Your task to perform on an android device: Open Chrome and go to settings Image 0: 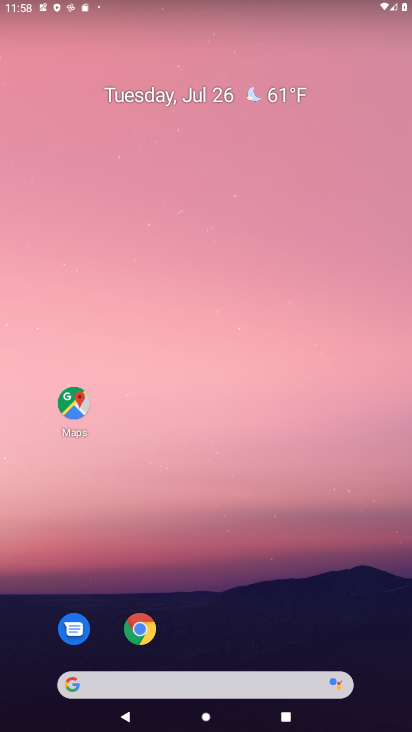
Step 0: click (144, 641)
Your task to perform on an android device: Open Chrome and go to settings Image 1: 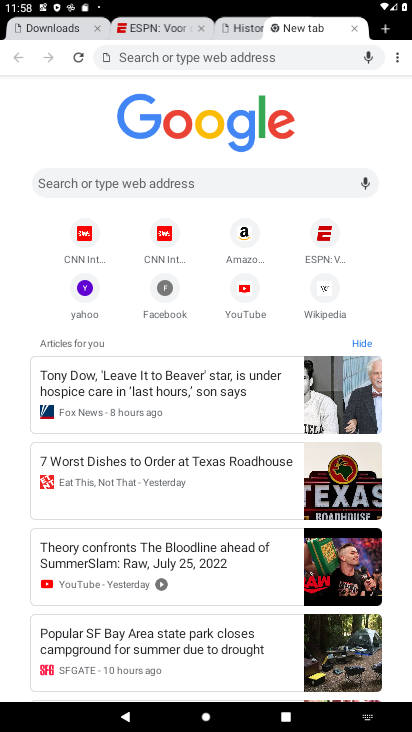
Step 1: click (403, 59)
Your task to perform on an android device: Open Chrome and go to settings Image 2: 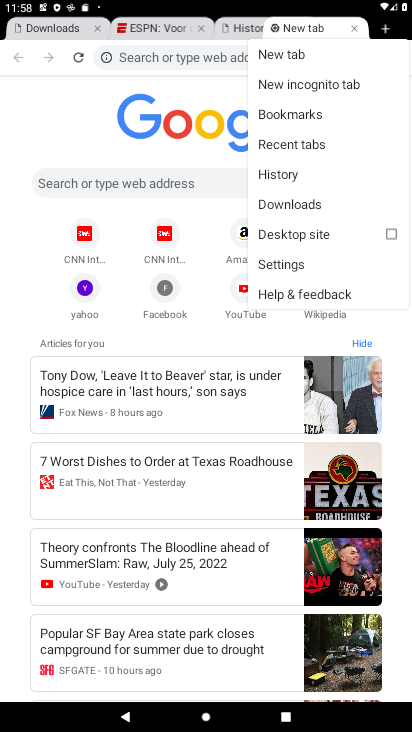
Step 2: click (310, 256)
Your task to perform on an android device: Open Chrome and go to settings Image 3: 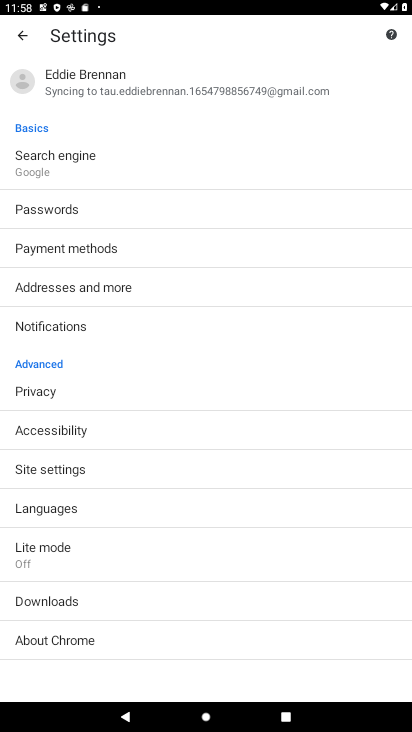
Step 3: task complete